Your task to perform on an android device: Open Google Maps Image 0: 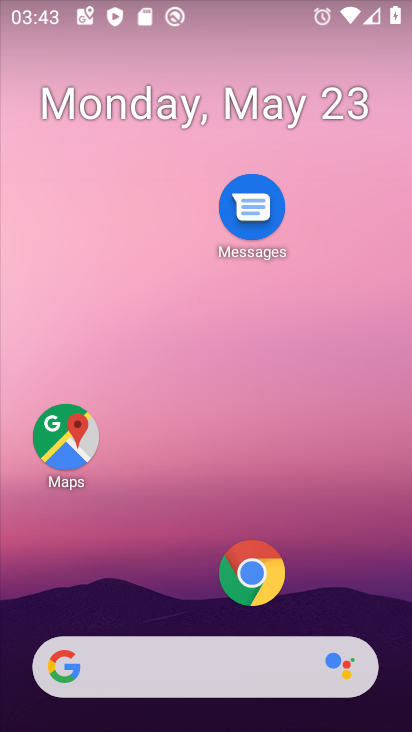
Step 0: drag from (225, 643) to (228, 51)
Your task to perform on an android device: Open Google Maps Image 1: 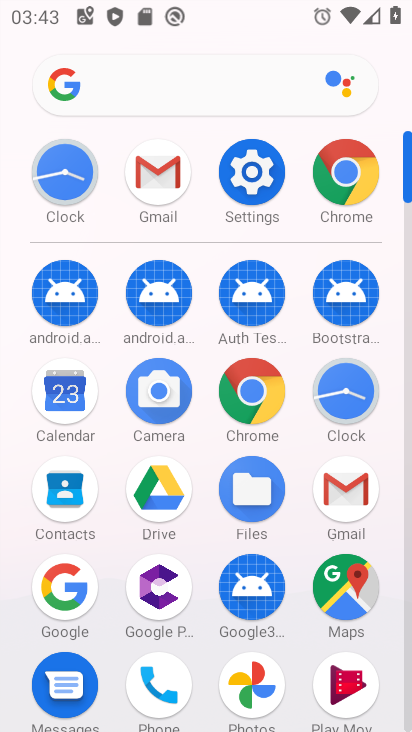
Step 1: click (354, 610)
Your task to perform on an android device: Open Google Maps Image 2: 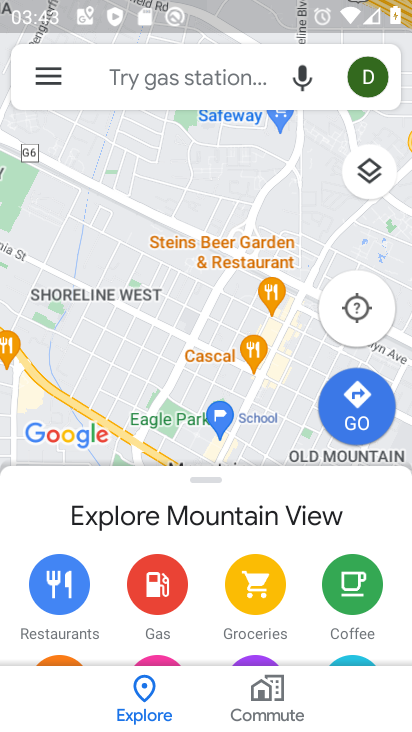
Step 2: task complete